Your task to perform on an android device: turn pop-ups off in chrome Image 0: 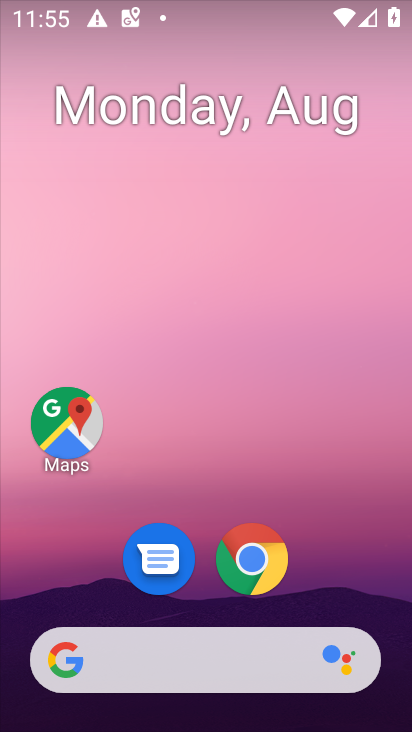
Step 0: drag from (203, 611) to (205, 108)
Your task to perform on an android device: turn pop-ups off in chrome Image 1: 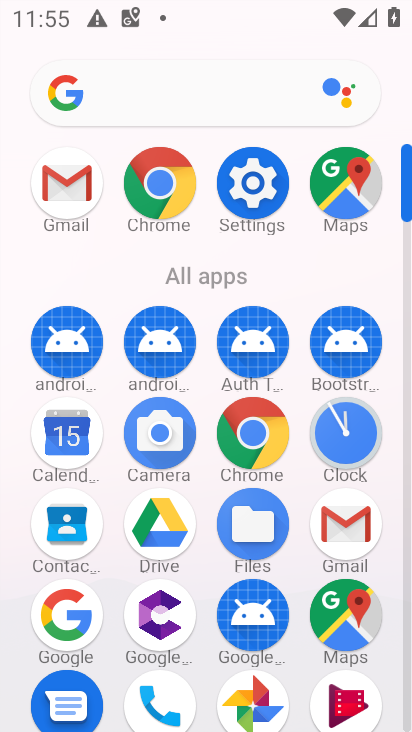
Step 1: click (256, 430)
Your task to perform on an android device: turn pop-ups off in chrome Image 2: 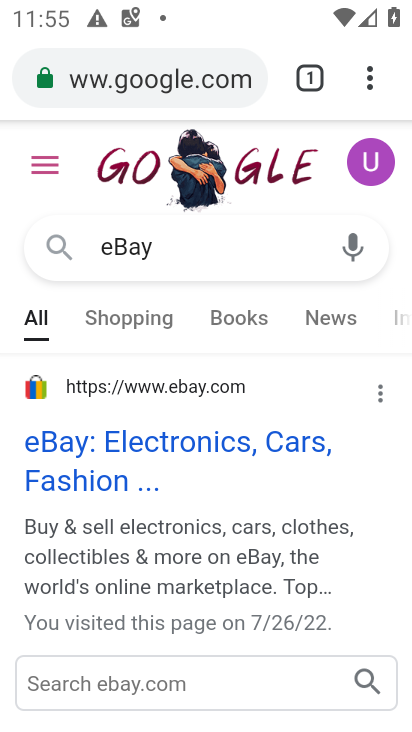
Step 2: click (369, 69)
Your task to perform on an android device: turn pop-ups off in chrome Image 3: 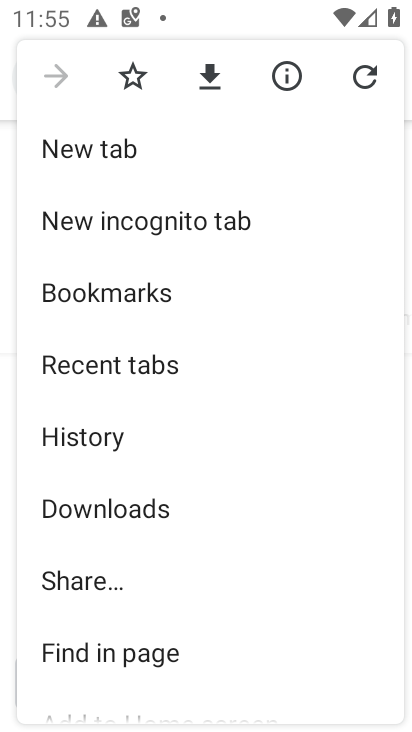
Step 3: drag from (143, 619) to (165, 167)
Your task to perform on an android device: turn pop-ups off in chrome Image 4: 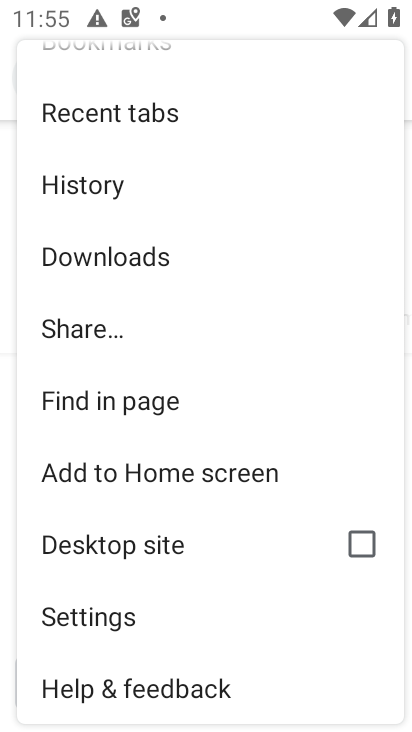
Step 4: click (96, 634)
Your task to perform on an android device: turn pop-ups off in chrome Image 5: 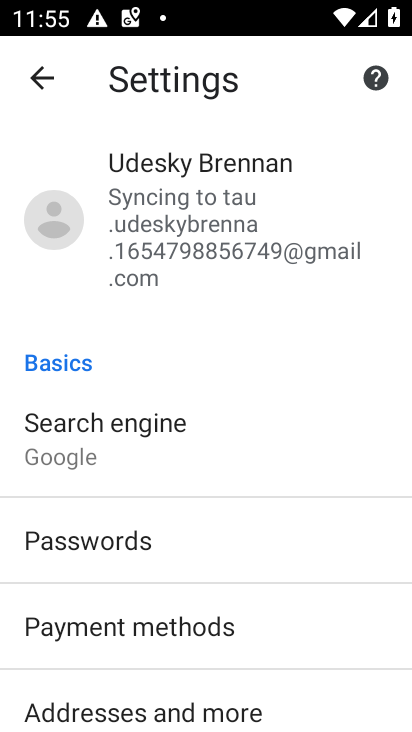
Step 5: drag from (133, 491) to (164, 275)
Your task to perform on an android device: turn pop-ups off in chrome Image 6: 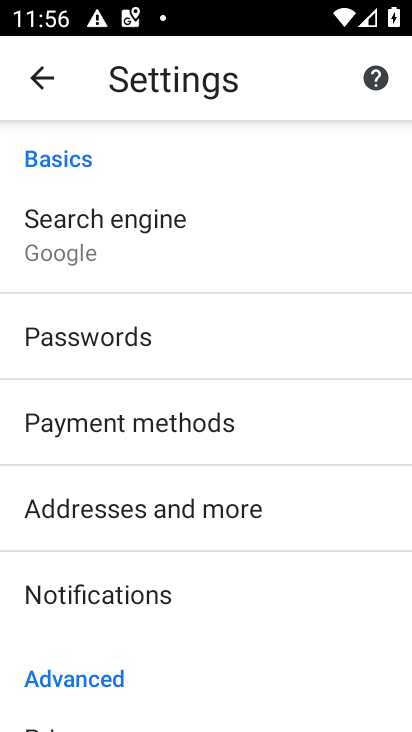
Step 6: drag from (178, 615) to (169, 294)
Your task to perform on an android device: turn pop-ups off in chrome Image 7: 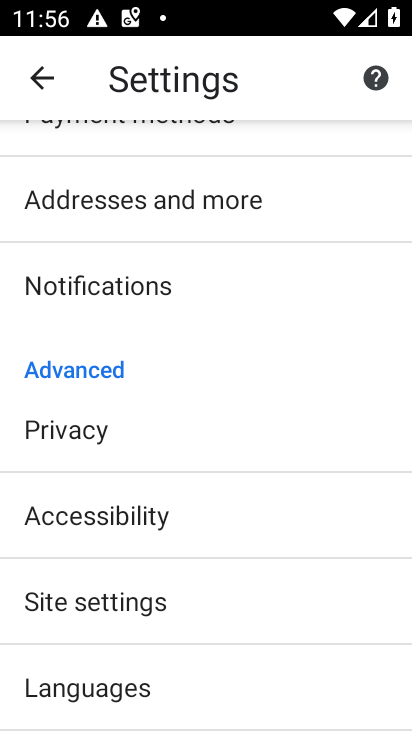
Step 7: click (98, 611)
Your task to perform on an android device: turn pop-ups off in chrome Image 8: 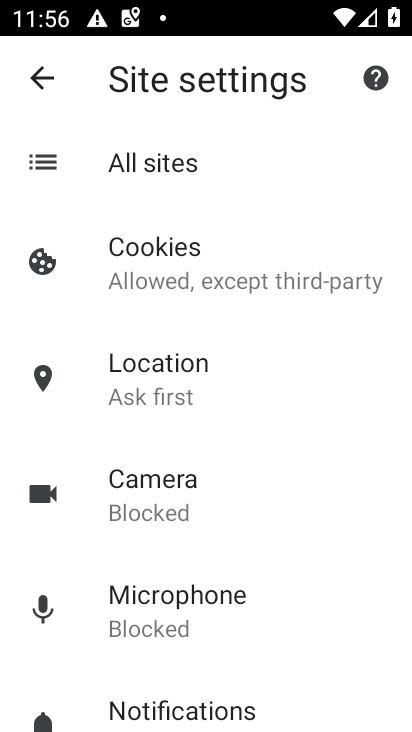
Step 8: drag from (148, 604) to (163, 354)
Your task to perform on an android device: turn pop-ups off in chrome Image 9: 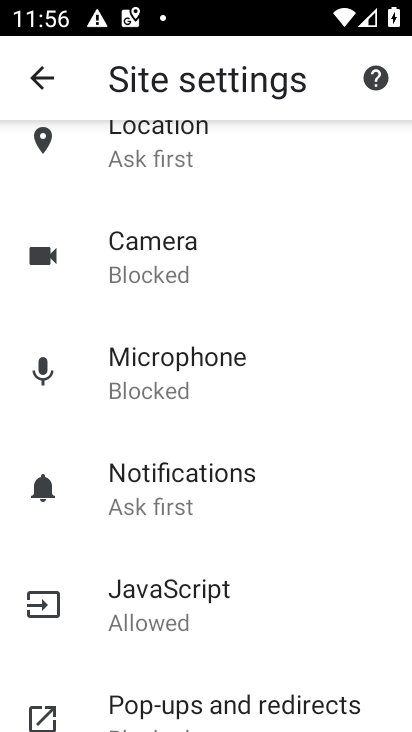
Step 9: drag from (179, 632) to (187, 448)
Your task to perform on an android device: turn pop-ups off in chrome Image 10: 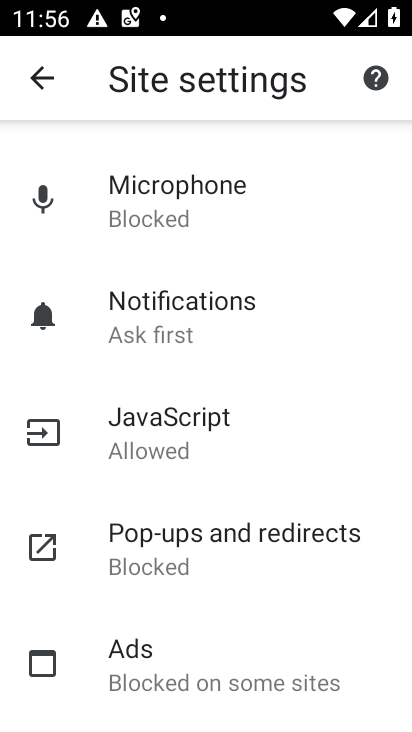
Step 10: click (168, 556)
Your task to perform on an android device: turn pop-ups off in chrome Image 11: 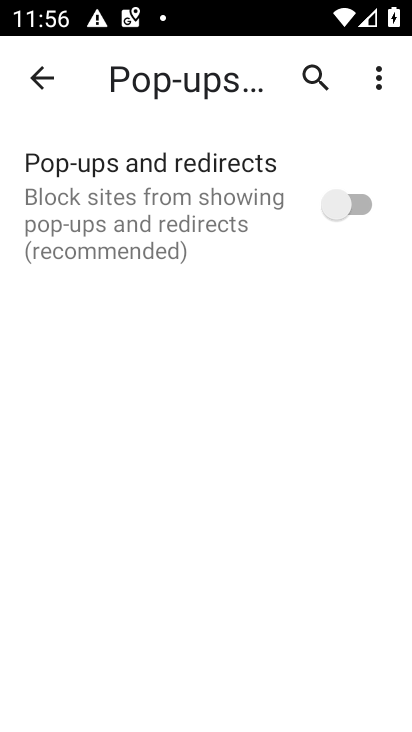
Step 11: task complete